Your task to perform on an android device: Search for pizza restaurants on Maps Image 0: 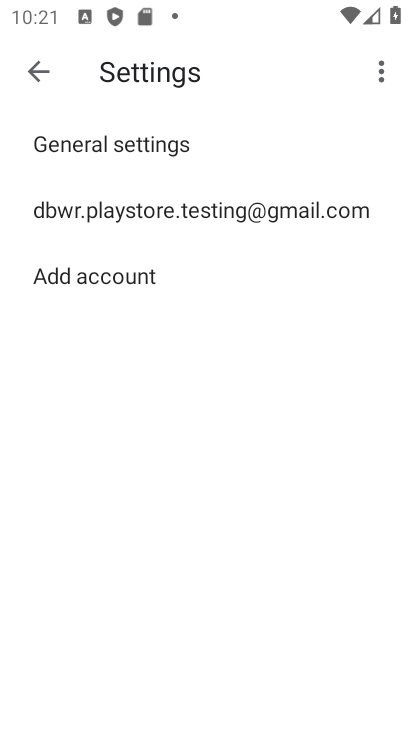
Step 0: press home button
Your task to perform on an android device: Search for pizza restaurants on Maps Image 1: 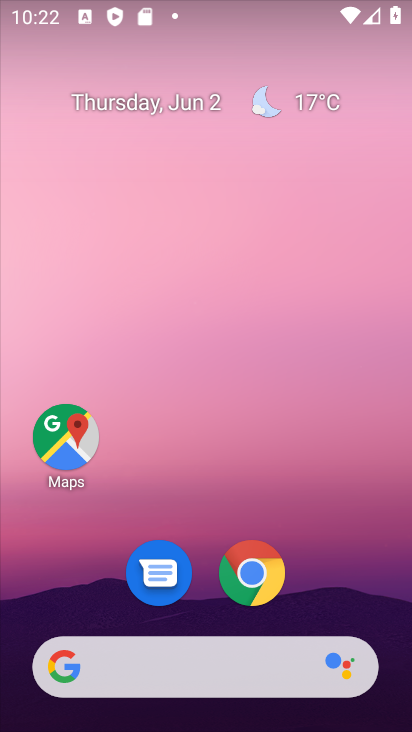
Step 1: drag from (349, 543) to (48, 318)
Your task to perform on an android device: Search for pizza restaurants on Maps Image 2: 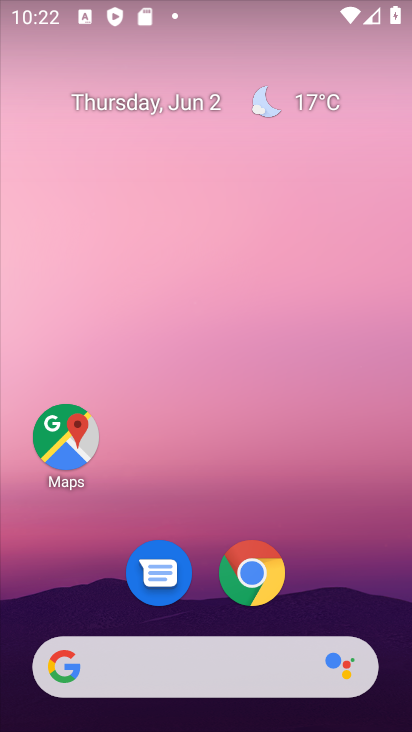
Step 2: drag from (393, 571) to (266, 35)
Your task to perform on an android device: Search for pizza restaurants on Maps Image 3: 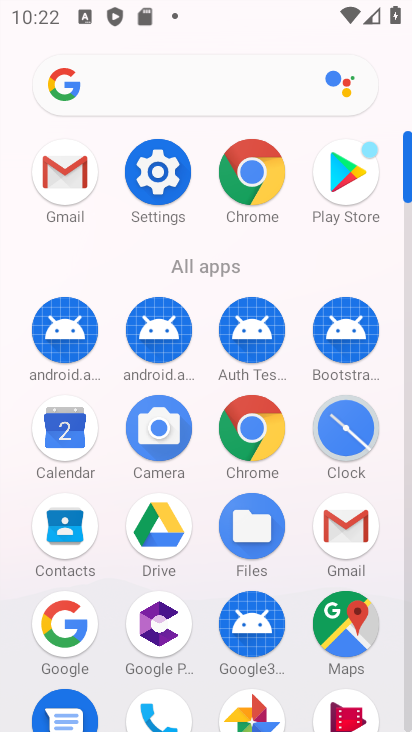
Step 3: click (366, 633)
Your task to perform on an android device: Search for pizza restaurants on Maps Image 4: 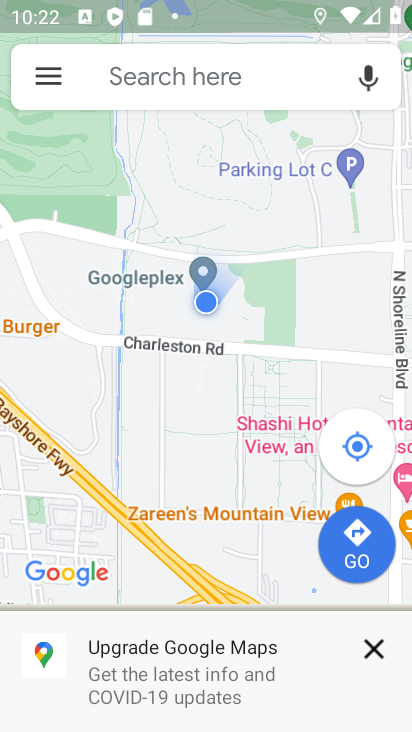
Step 4: click (149, 71)
Your task to perform on an android device: Search for pizza restaurants on Maps Image 5: 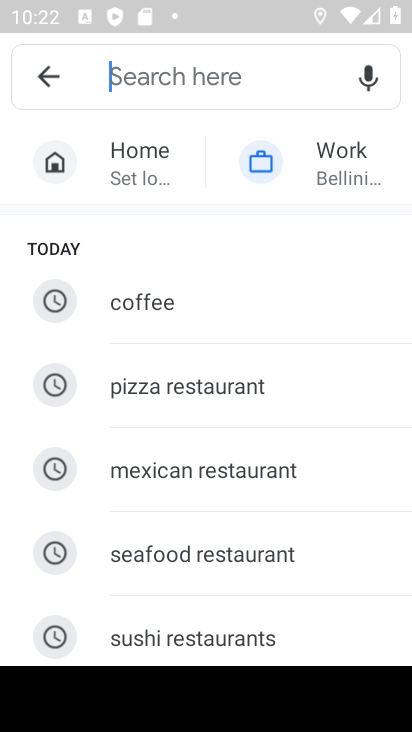
Step 5: click (285, 389)
Your task to perform on an android device: Search for pizza restaurants on Maps Image 6: 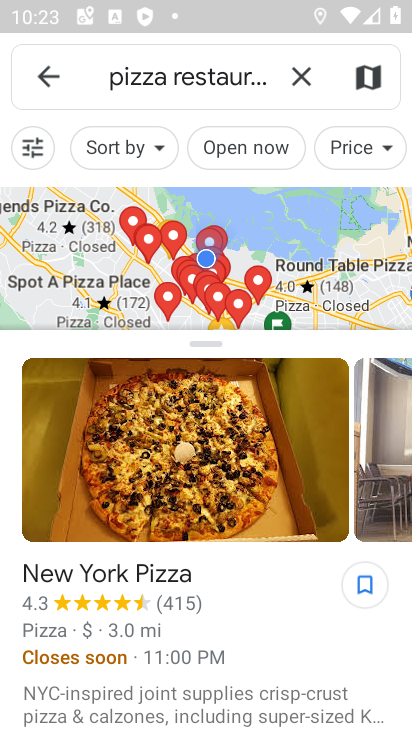
Step 6: task complete